Your task to perform on an android device: When is my next meeting? Image 0: 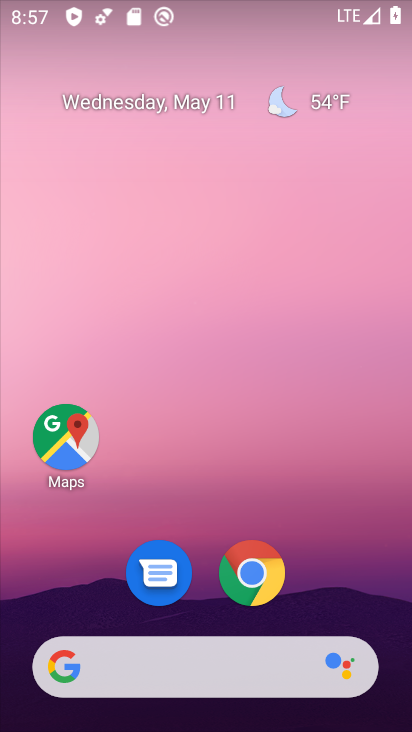
Step 0: drag from (219, 641) to (204, 104)
Your task to perform on an android device: When is my next meeting? Image 1: 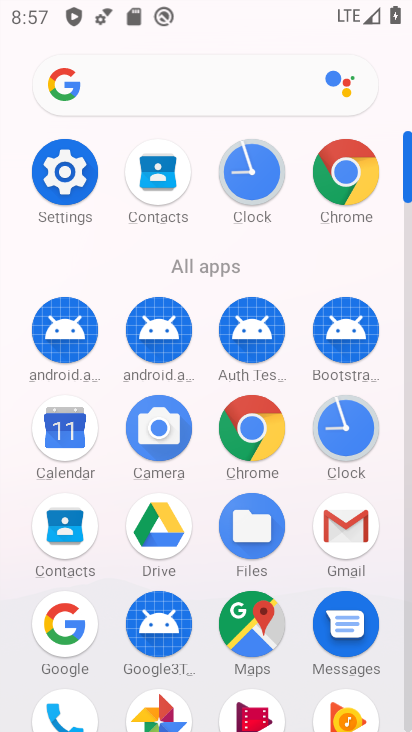
Step 1: click (44, 447)
Your task to perform on an android device: When is my next meeting? Image 2: 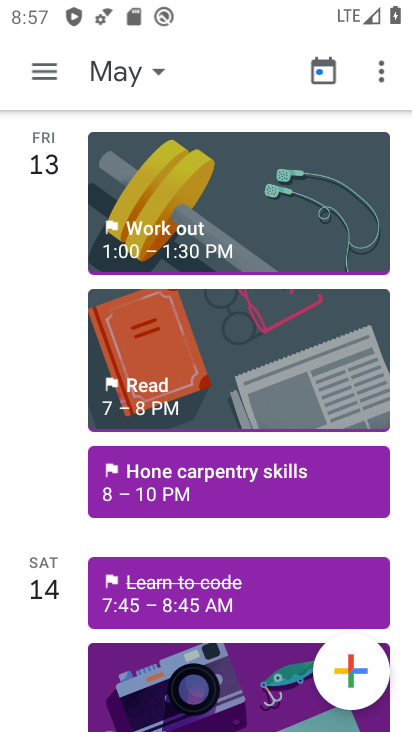
Step 2: click (143, 76)
Your task to perform on an android device: When is my next meeting? Image 3: 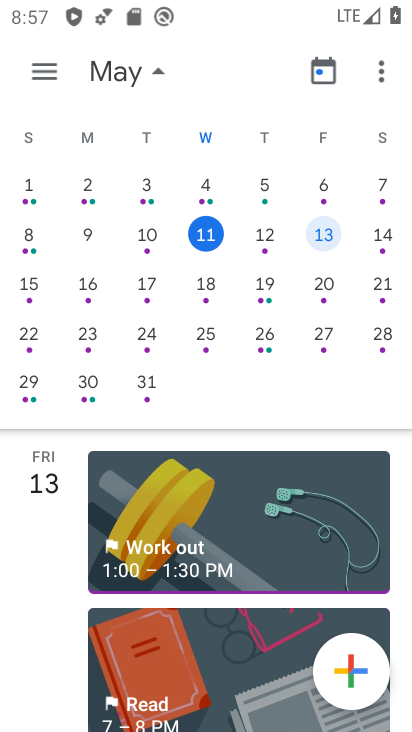
Step 3: click (258, 239)
Your task to perform on an android device: When is my next meeting? Image 4: 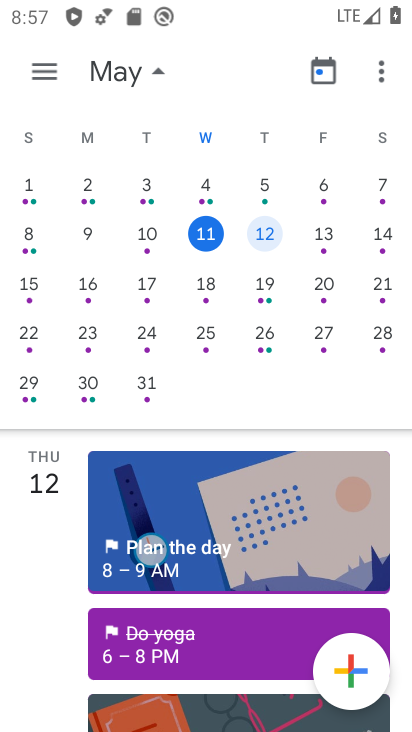
Step 4: task complete